Your task to perform on an android device: turn on wifi Image 0: 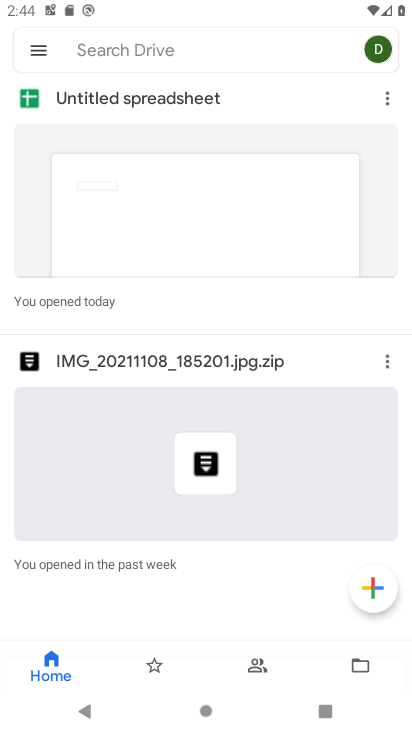
Step 0: press home button
Your task to perform on an android device: turn on wifi Image 1: 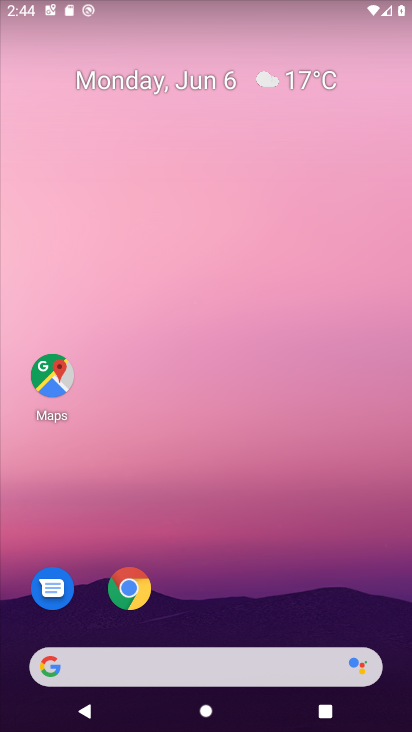
Step 1: drag from (261, 709) to (253, 77)
Your task to perform on an android device: turn on wifi Image 2: 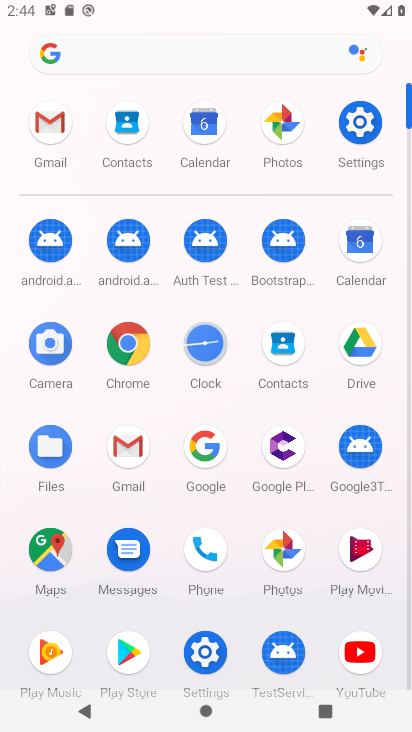
Step 2: click (369, 127)
Your task to perform on an android device: turn on wifi Image 3: 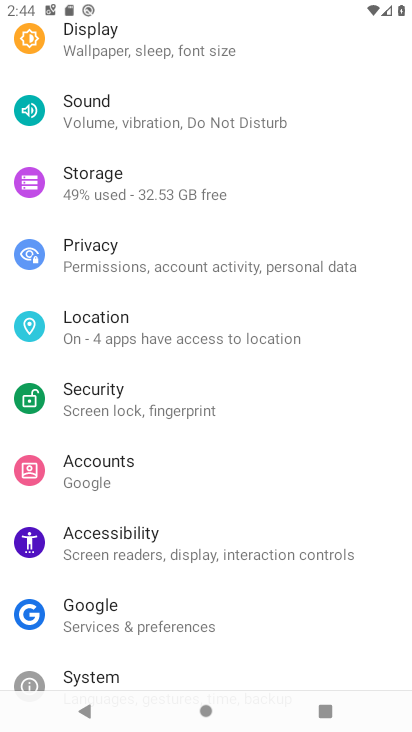
Step 3: drag from (297, 138) to (217, 682)
Your task to perform on an android device: turn on wifi Image 4: 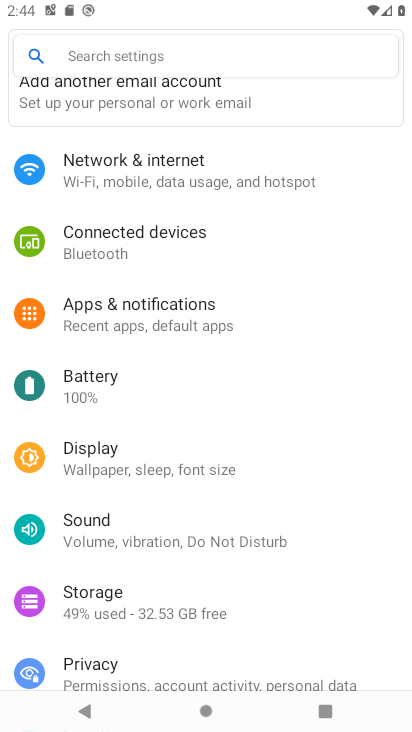
Step 4: drag from (312, 133) to (215, 702)
Your task to perform on an android device: turn on wifi Image 5: 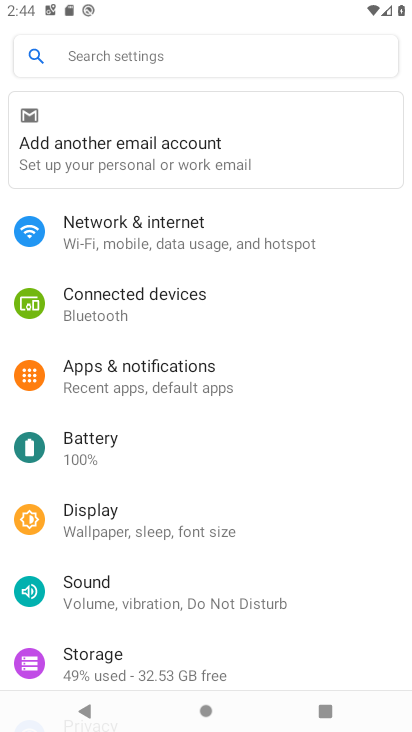
Step 5: click (309, 243)
Your task to perform on an android device: turn on wifi Image 6: 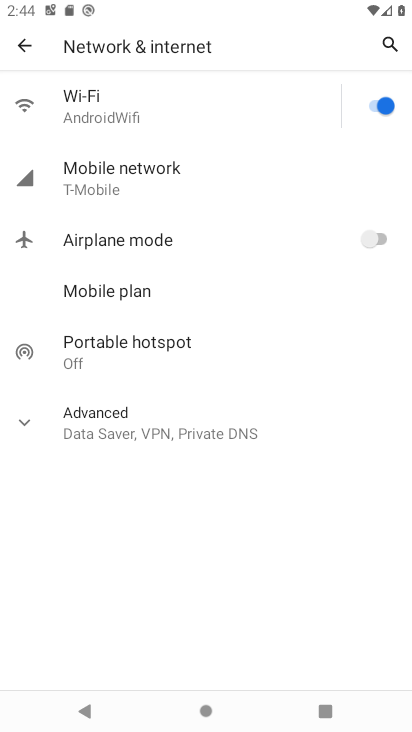
Step 6: task complete